Your task to perform on an android device: install app "Microsoft Authenticator" Image 0: 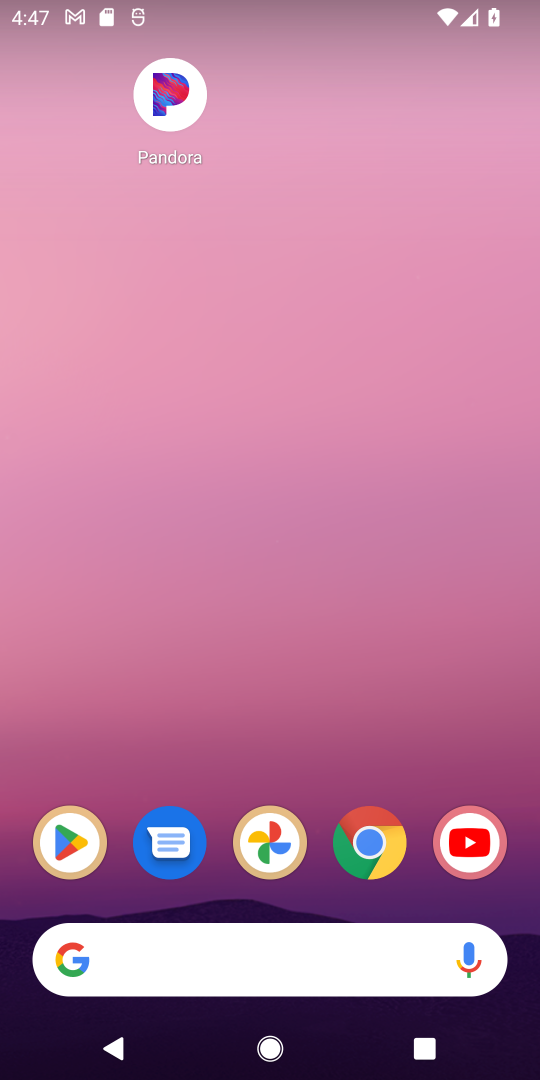
Step 0: drag from (256, 528) to (237, 392)
Your task to perform on an android device: install app "Microsoft Authenticator" Image 1: 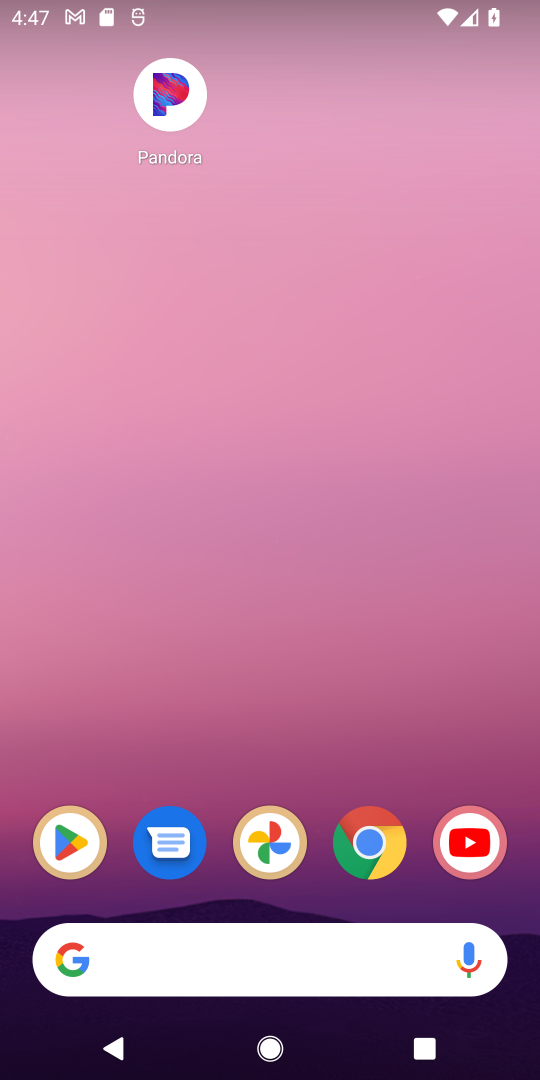
Step 1: drag from (323, 929) to (233, 146)
Your task to perform on an android device: install app "Microsoft Authenticator" Image 2: 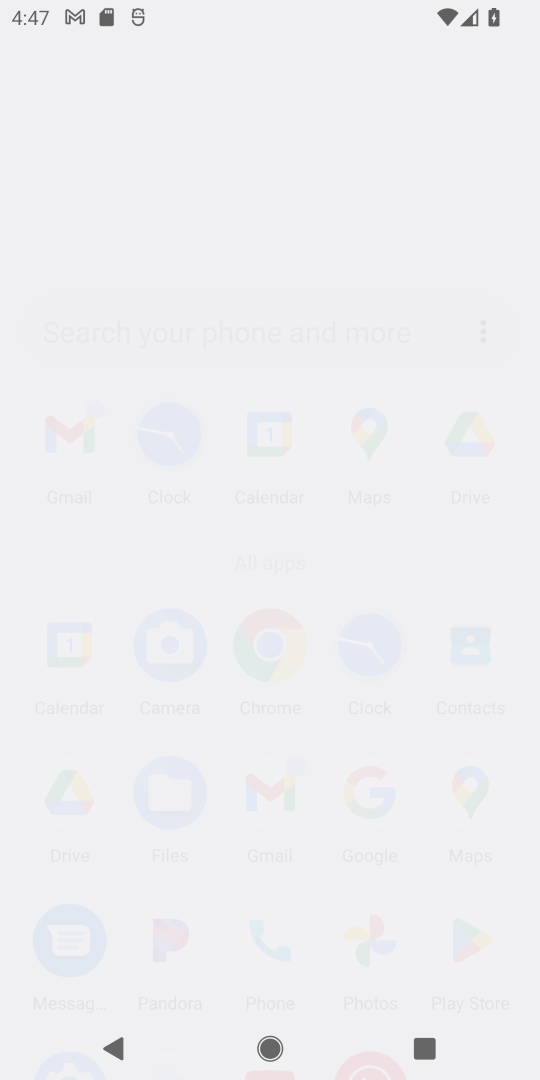
Step 2: drag from (266, 179) to (237, 297)
Your task to perform on an android device: install app "Microsoft Authenticator" Image 3: 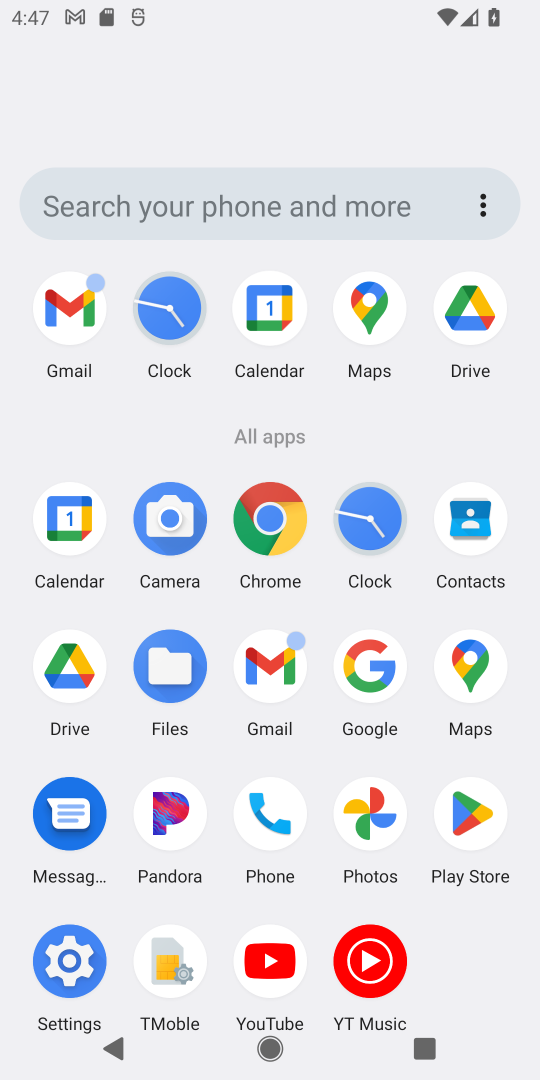
Step 3: drag from (214, 275) to (280, 405)
Your task to perform on an android device: install app "Microsoft Authenticator" Image 4: 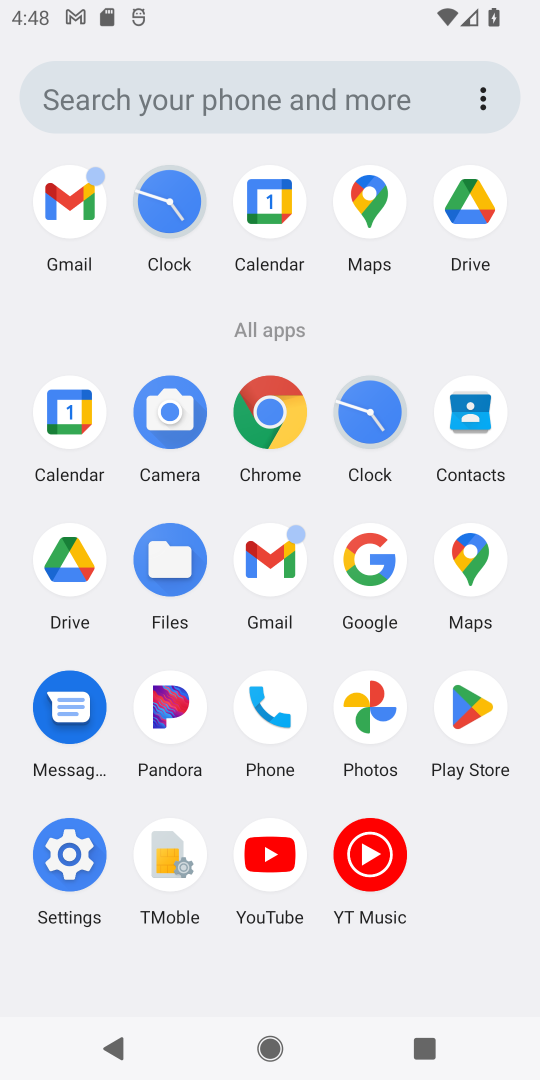
Step 4: click (475, 706)
Your task to perform on an android device: install app "Microsoft Authenticator" Image 5: 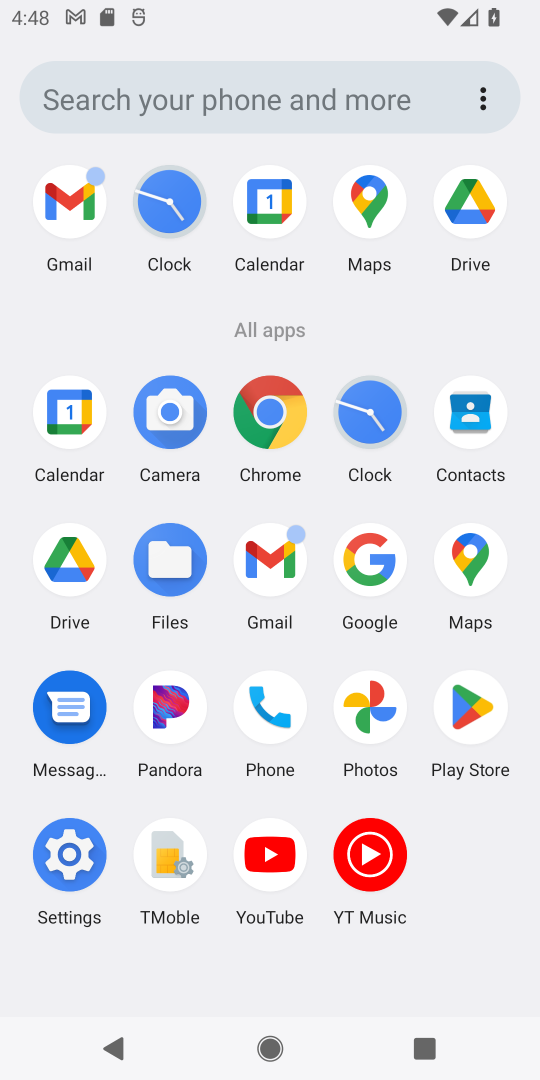
Step 5: click (479, 701)
Your task to perform on an android device: install app "Microsoft Authenticator" Image 6: 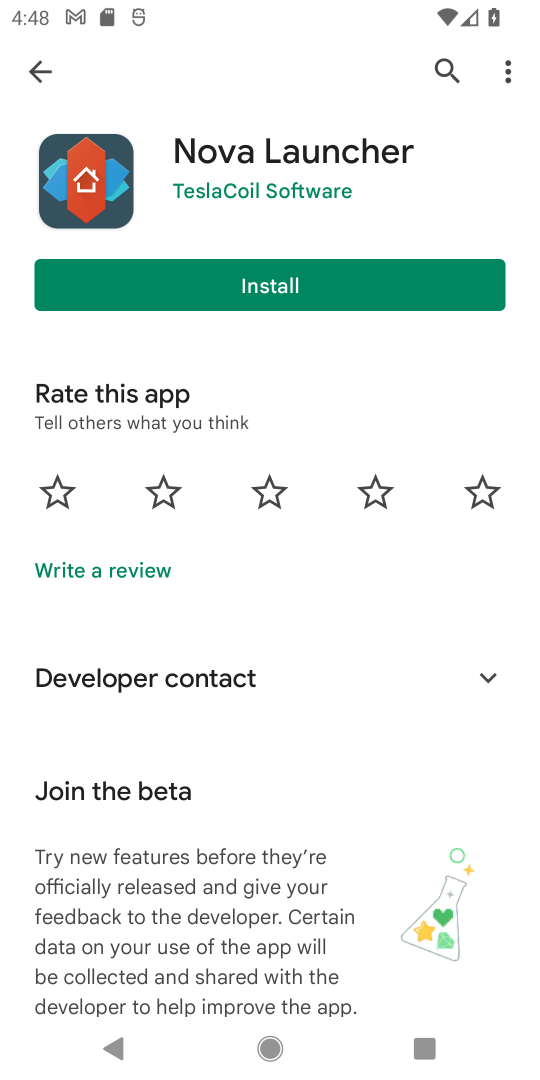
Step 6: click (53, 89)
Your task to perform on an android device: install app "Microsoft Authenticator" Image 7: 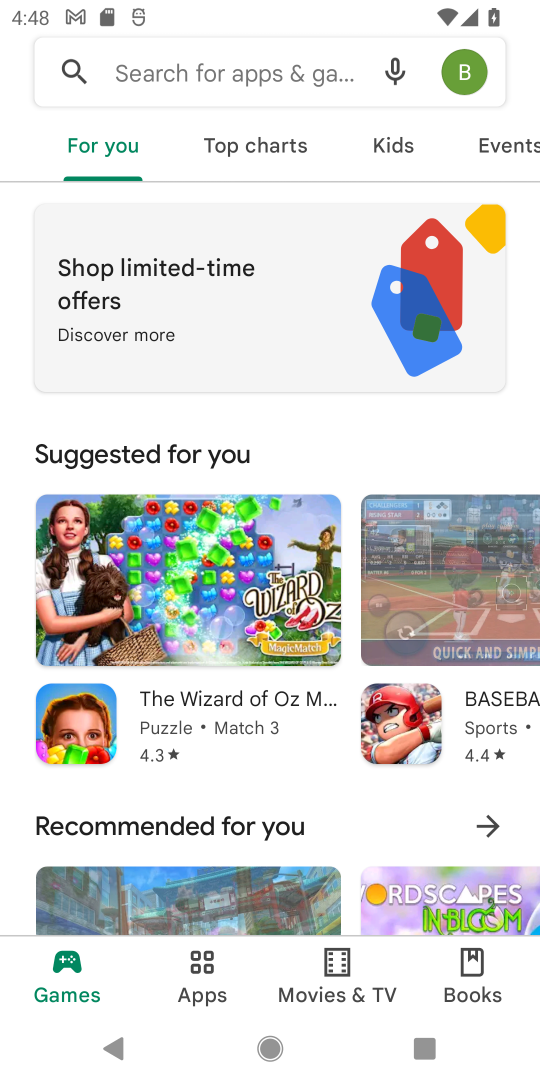
Step 7: click (179, 59)
Your task to perform on an android device: install app "Microsoft Authenticator" Image 8: 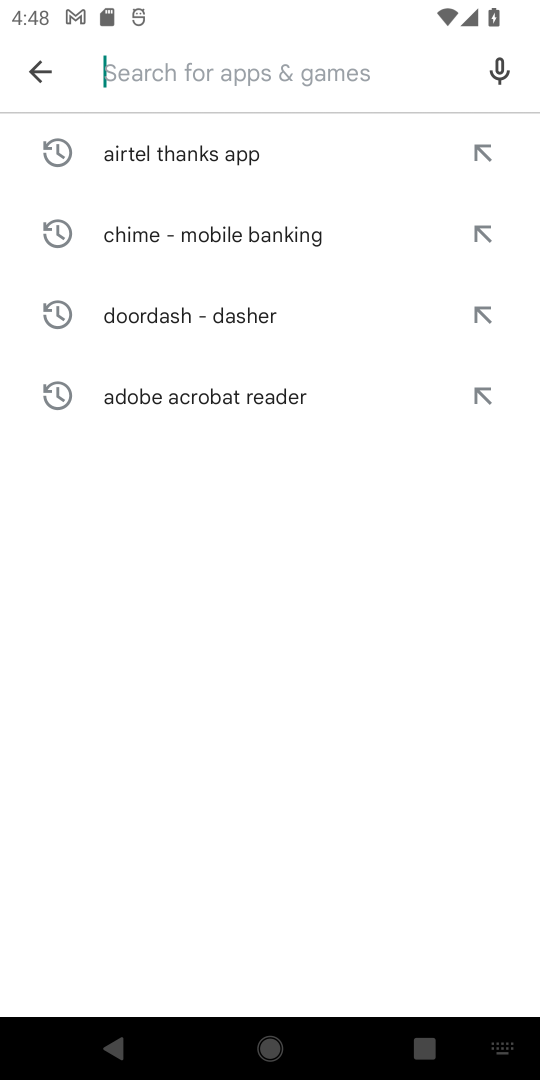
Step 8: click (179, 59)
Your task to perform on an android device: install app "Microsoft Authenticator" Image 9: 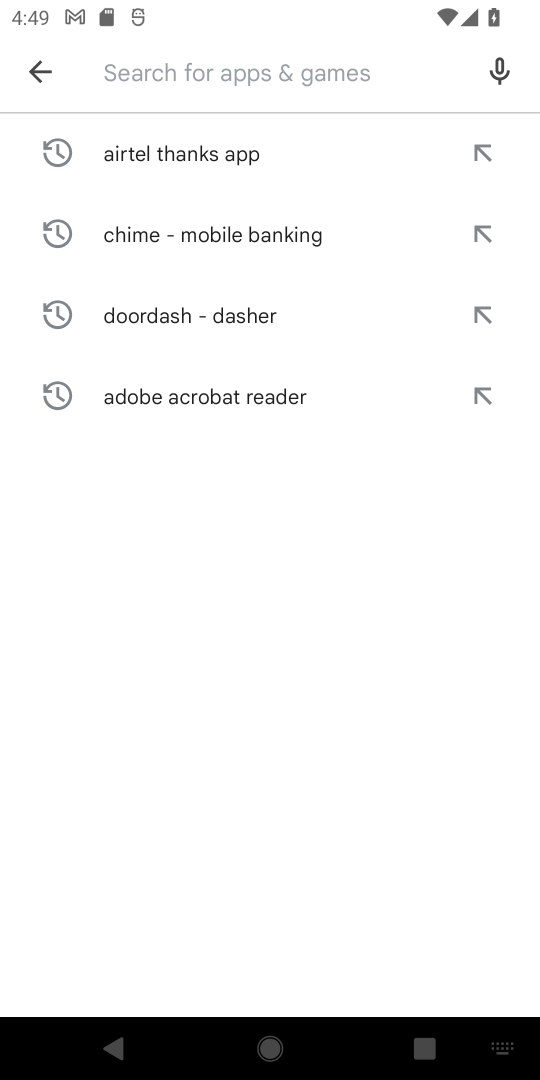
Step 9: type "Microsoft Authenticator"
Your task to perform on an android device: install app "Microsoft Authenticator" Image 10: 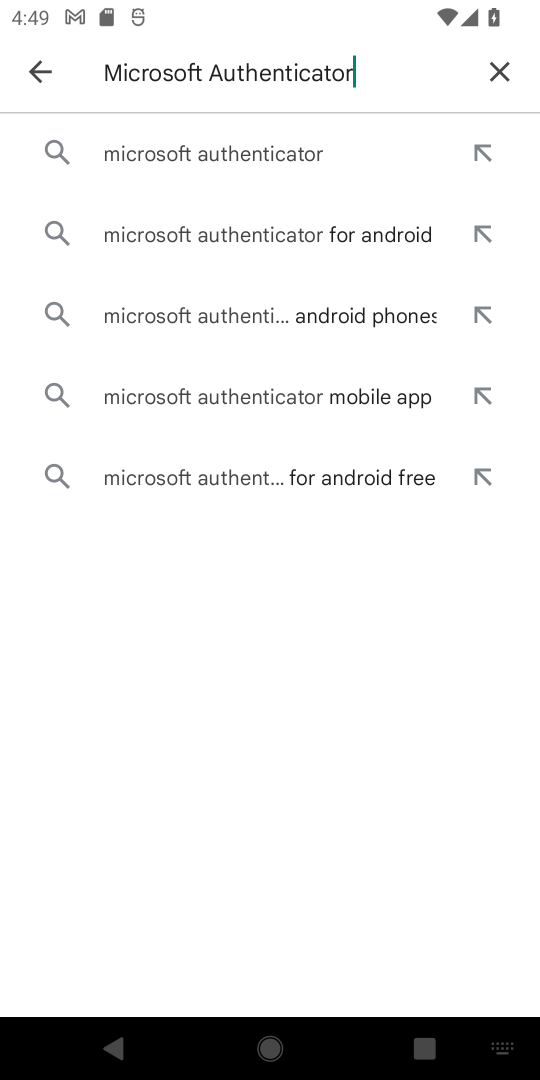
Step 10: click (296, 154)
Your task to perform on an android device: install app "Microsoft Authenticator" Image 11: 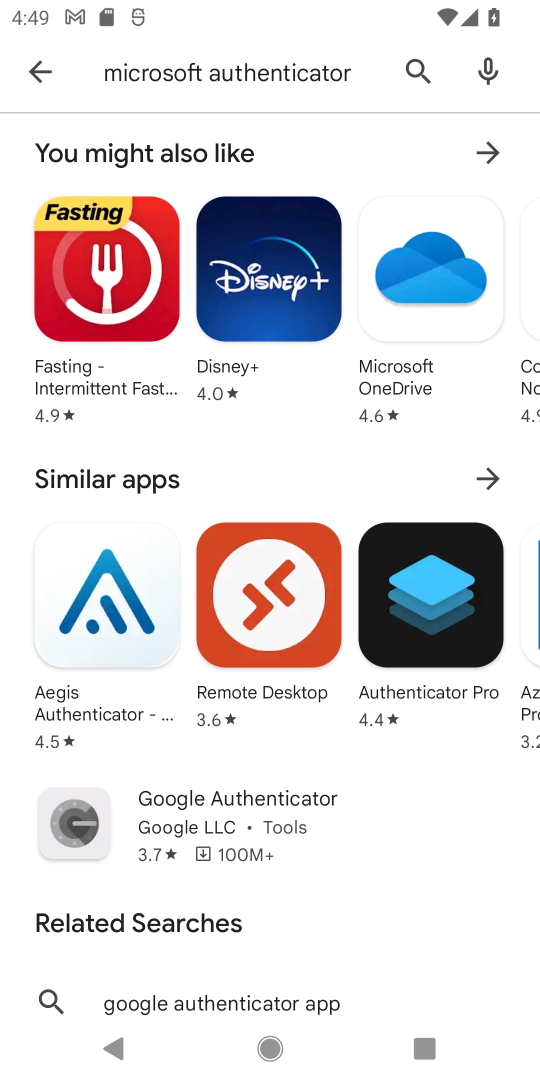
Step 11: drag from (314, 976) to (311, 388)
Your task to perform on an android device: install app "Microsoft Authenticator" Image 12: 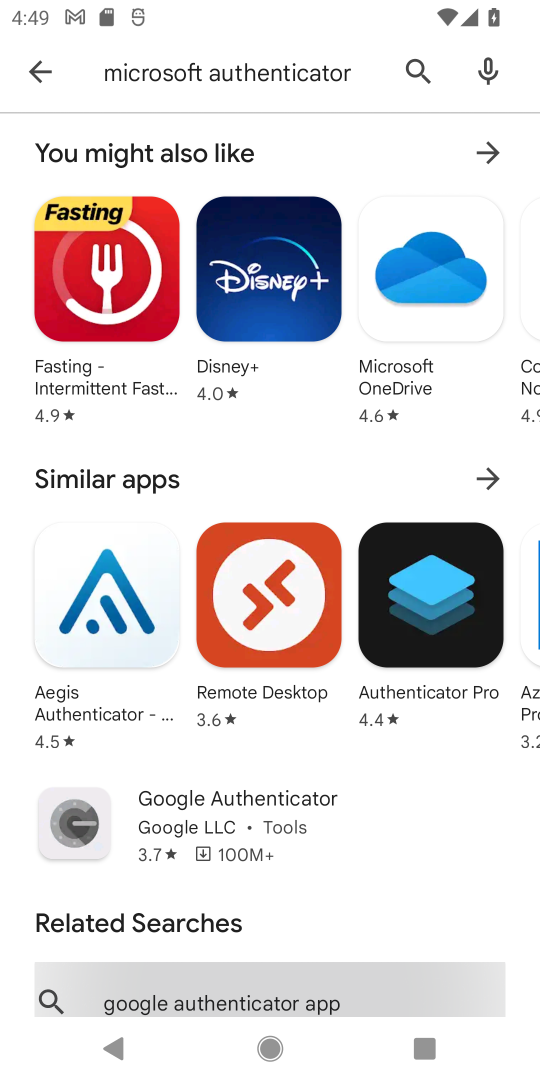
Step 12: drag from (319, 471) to (328, 257)
Your task to perform on an android device: install app "Microsoft Authenticator" Image 13: 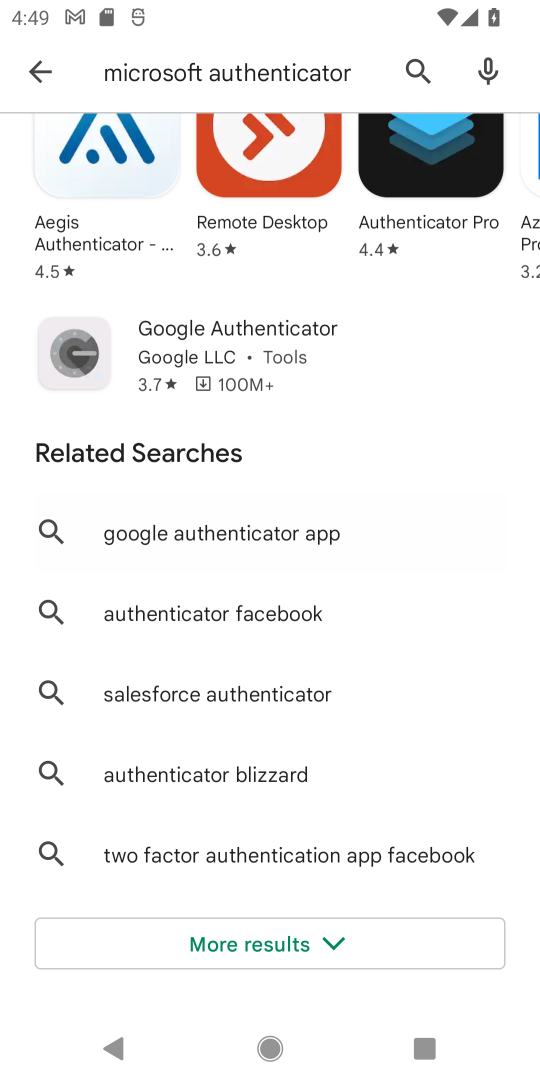
Step 13: drag from (307, 435) to (265, 247)
Your task to perform on an android device: install app "Microsoft Authenticator" Image 14: 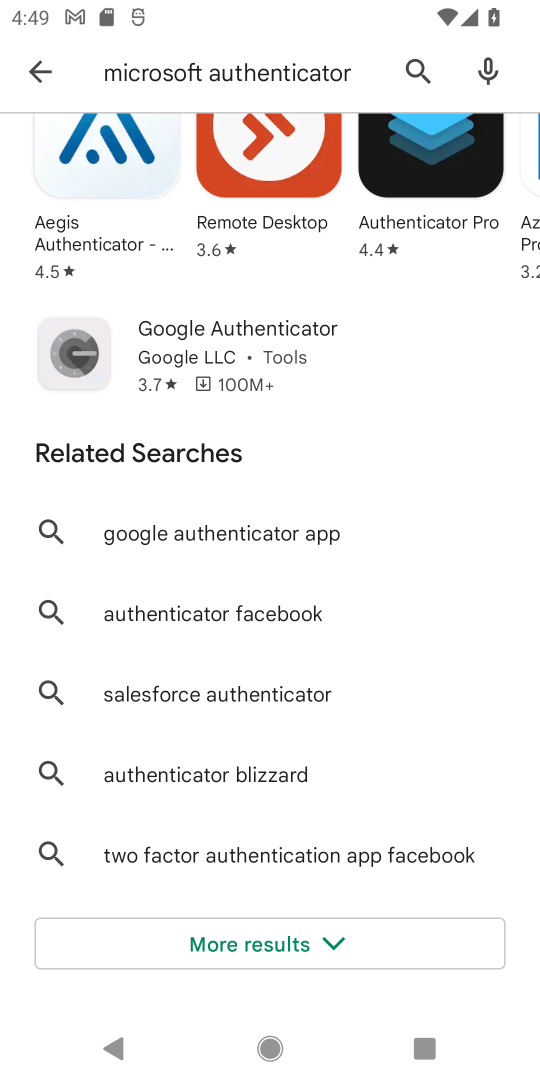
Step 14: drag from (243, 712) to (191, 312)
Your task to perform on an android device: install app "Microsoft Authenticator" Image 15: 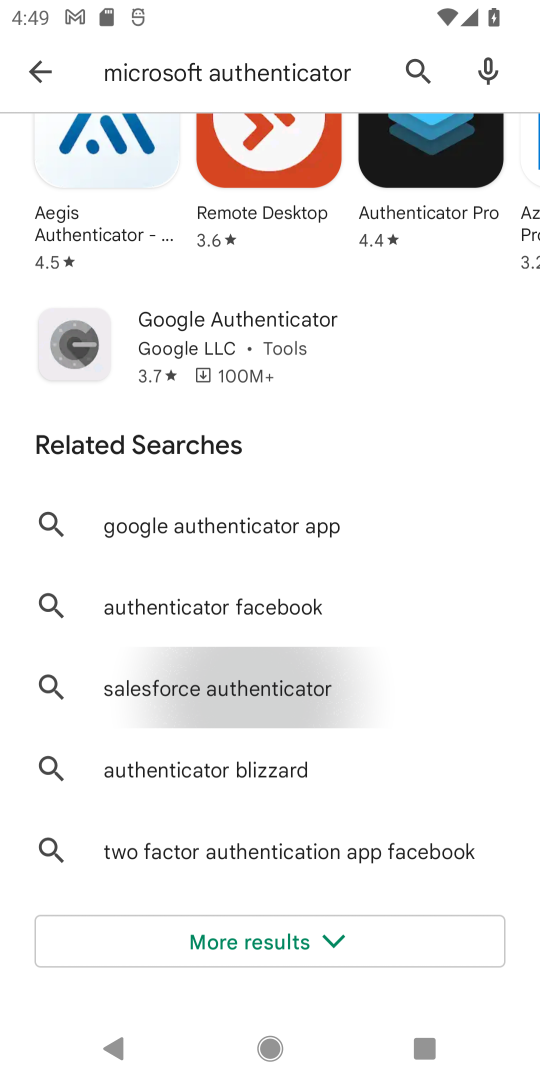
Step 15: drag from (303, 535) to (292, 419)
Your task to perform on an android device: install app "Microsoft Authenticator" Image 16: 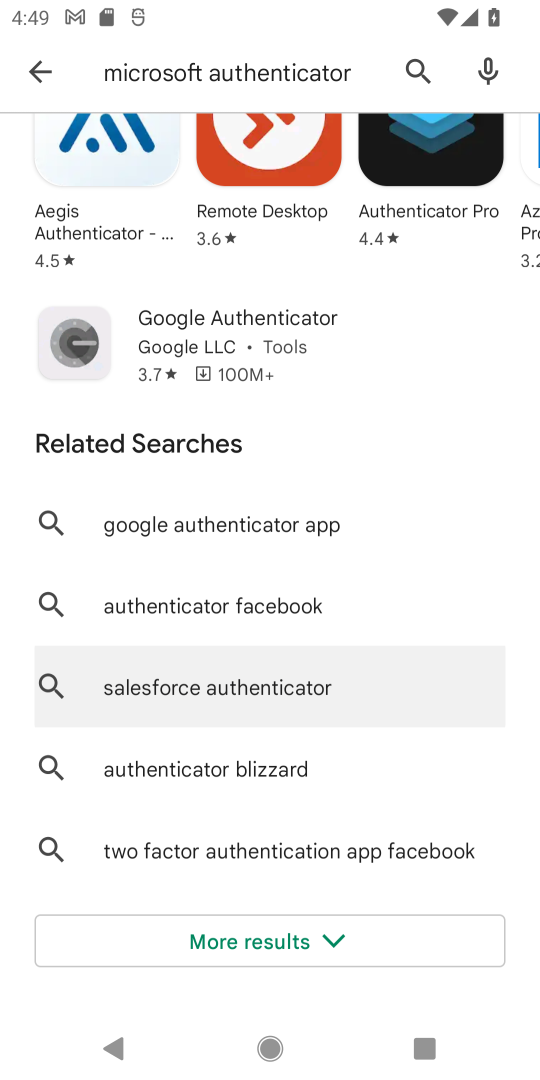
Step 16: drag from (310, 480) to (259, 432)
Your task to perform on an android device: install app "Microsoft Authenticator" Image 17: 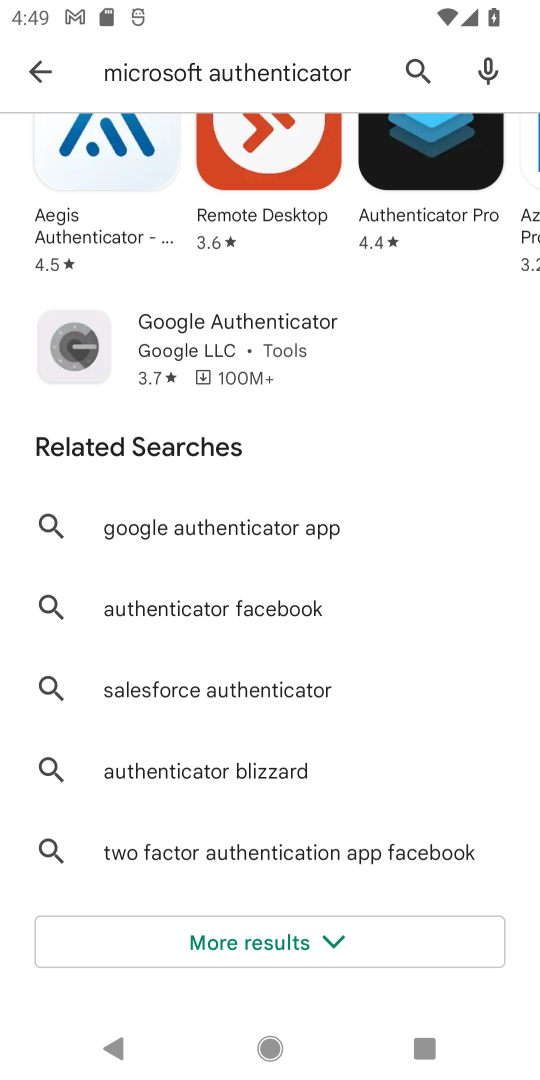
Step 17: drag from (206, 580) to (195, 339)
Your task to perform on an android device: install app "Microsoft Authenticator" Image 18: 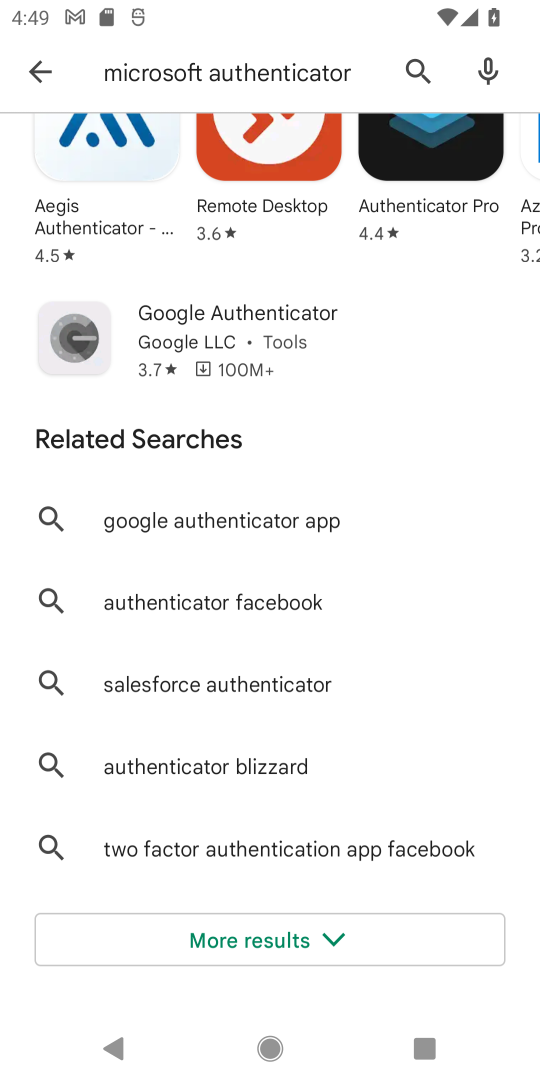
Step 18: drag from (150, 642) to (89, 253)
Your task to perform on an android device: install app "Microsoft Authenticator" Image 19: 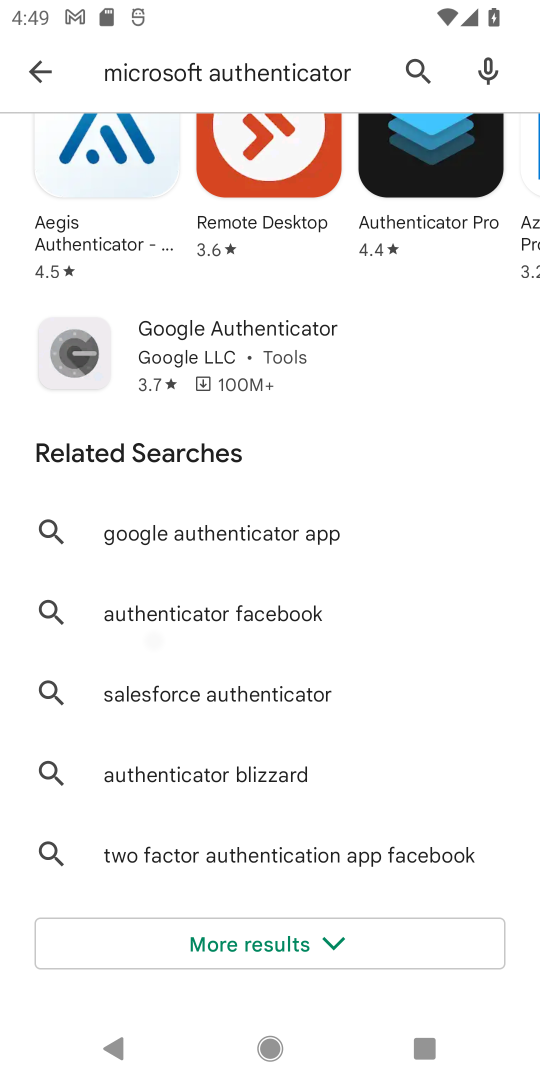
Step 19: click (242, 388)
Your task to perform on an android device: install app "Microsoft Authenticator" Image 20: 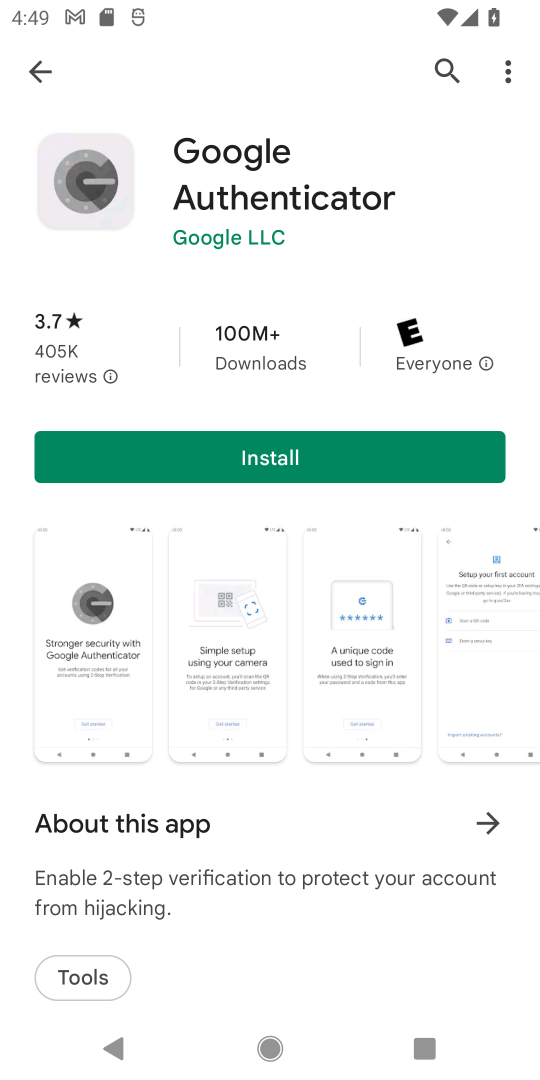
Step 20: drag from (299, 403) to (294, 958)
Your task to perform on an android device: install app "Microsoft Authenticator" Image 21: 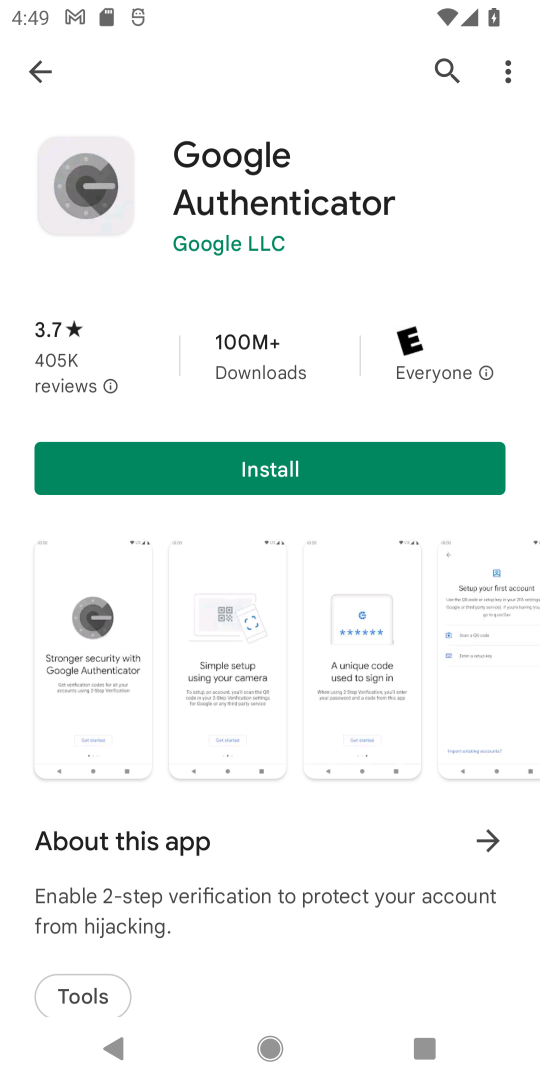
Step 21: drag from (341, 446) to (308, 904)
Your task to perform on an android device: install app "Microsoft Authenticator" Image 22: 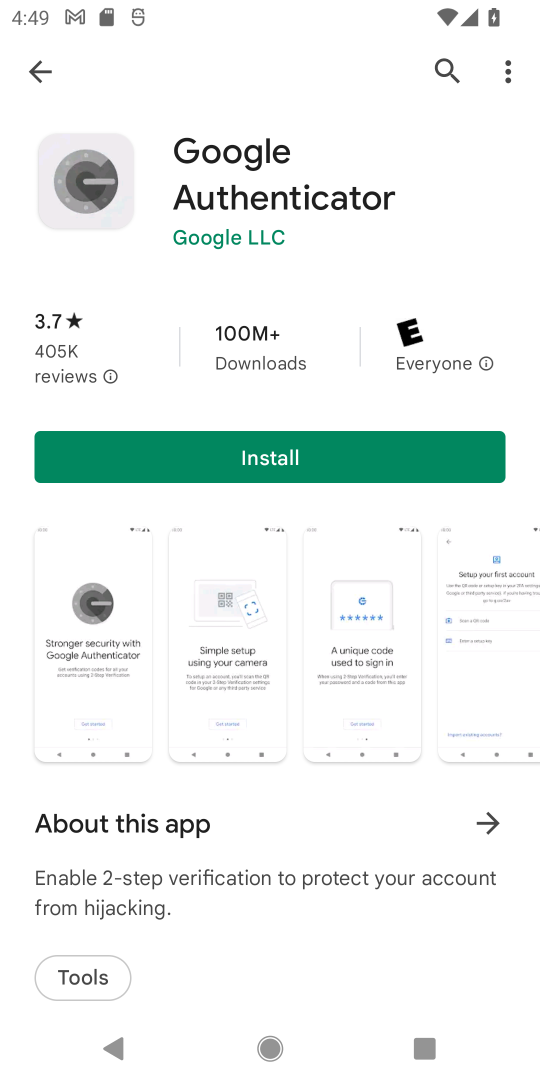
Step 22: drag from (248, 563) to (256, 692)
Your task to perform on an android device: install app "Microsoft Authenticator" Image 23: 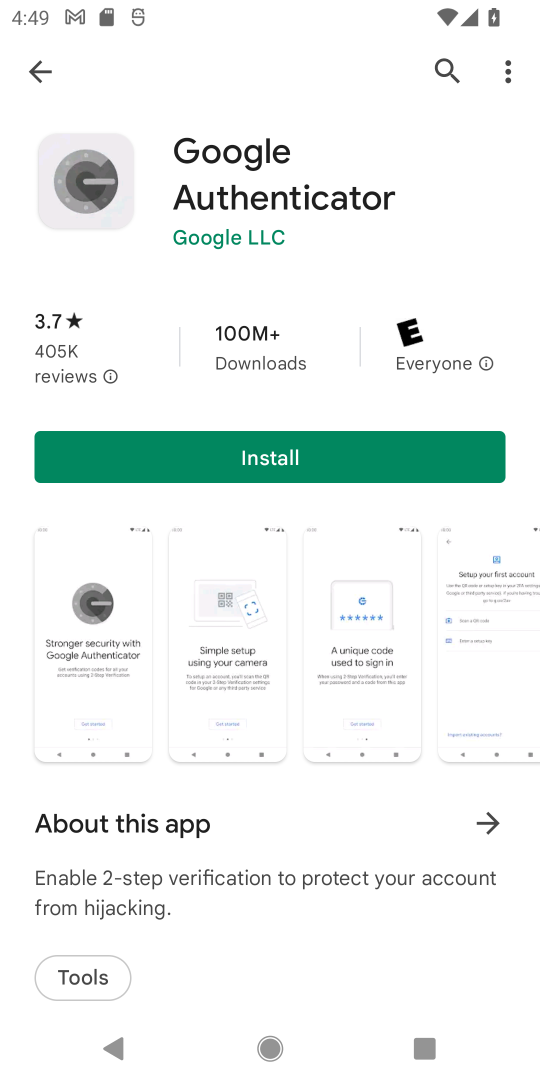
Step 23: click (34, 72)
Your task to perform on an android device: install app "Microsoft Authenticator" Image 24: 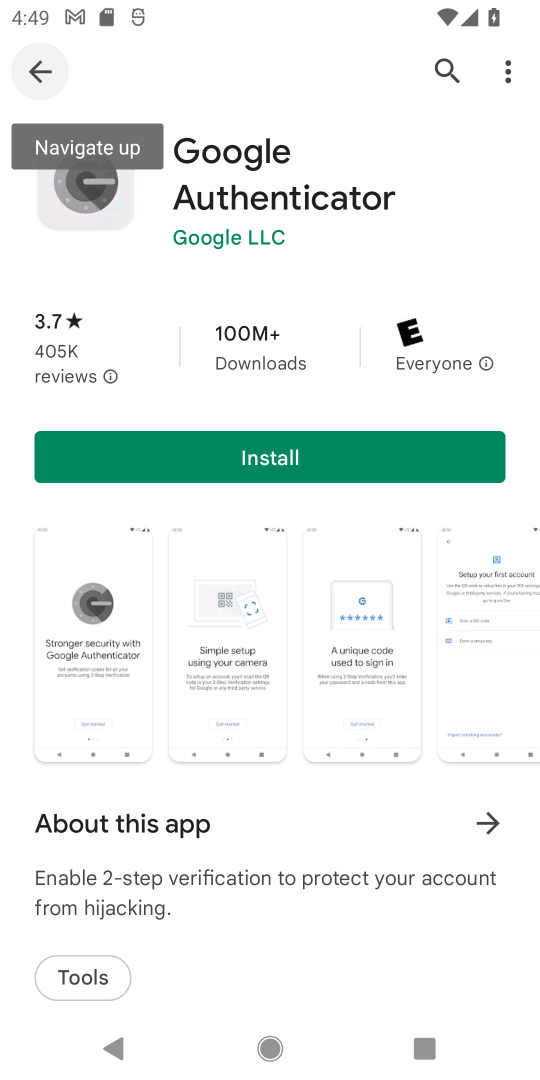
Step 24: task complete